Your task to perform on an android device: turn on the 12-hour format for clock Image 0: 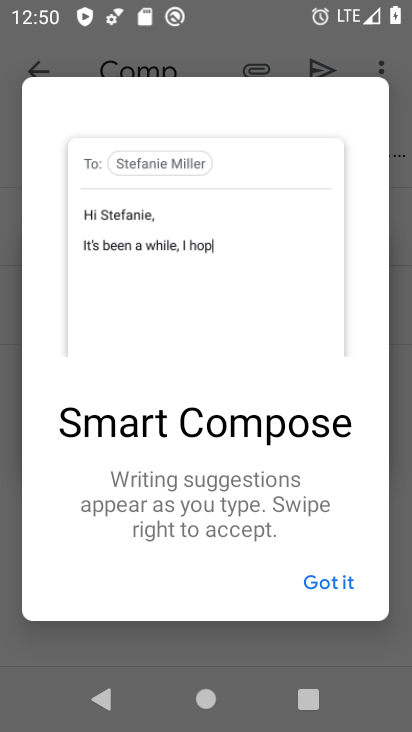
Step 0: press home button
Your task to perform on an android device: turn on the 12-hour format for clock Image 1: 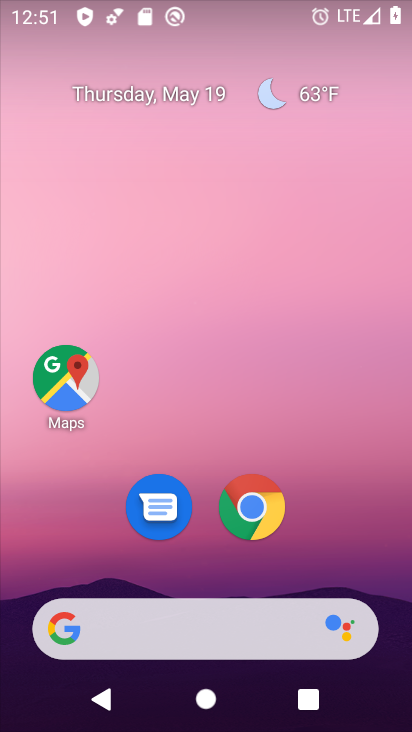
Step 1: drag from (277, 556) to (293, 210)
Your task to perform on an android device: turn on the 12-hour format for clock Image 2: 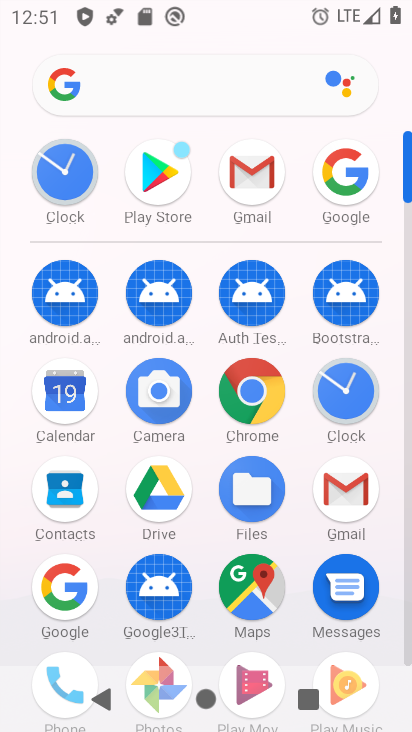
Step 2: click (329, 385)
Your task to perform on an android device: turn on the 12-hour format for clock Image 3: 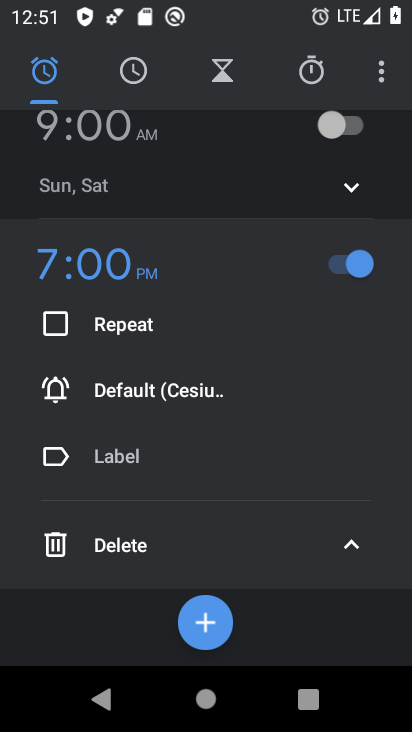
Step 3: click (383, 77)
Your task to perform on an android device: turn on the 12-hour format for clock Image 4: 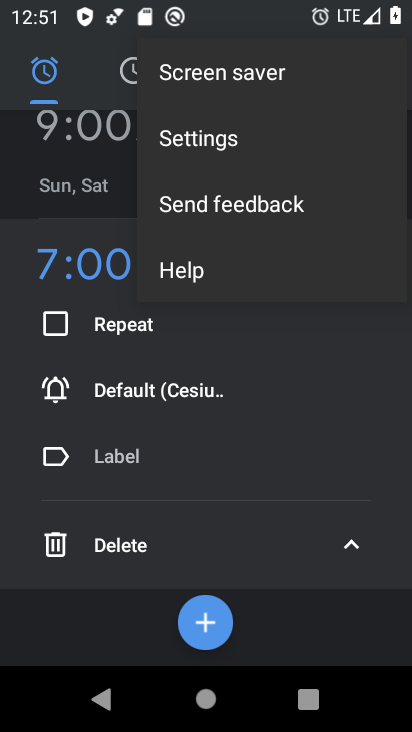
Step 4: click (206, 127)
Your task to perform on an android device: turn on the 12-hour format for clock Image 5: 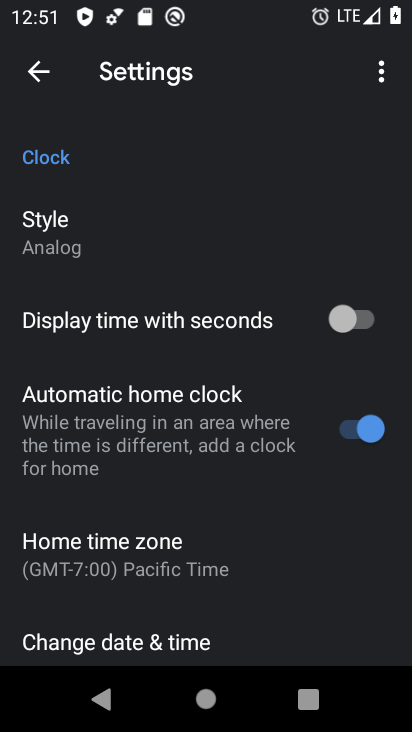
Step 5: click (77, 635)
Your task to perform on an android device: turn on the 12-hour format for clock Image 6: 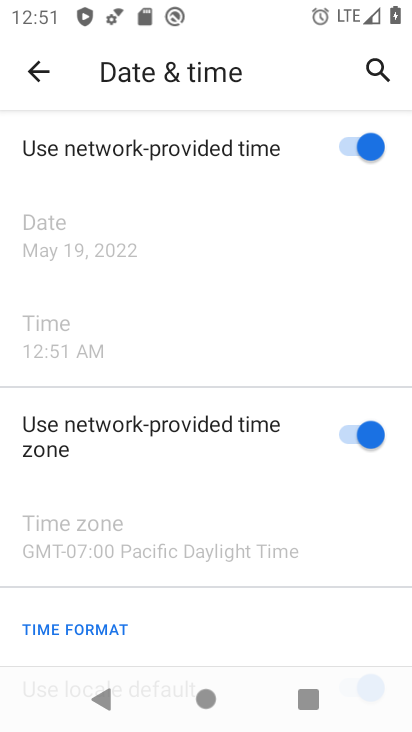
Step 6: task complete